Your task to perform on an android device: search for starred emails in the gmail app Image 0: 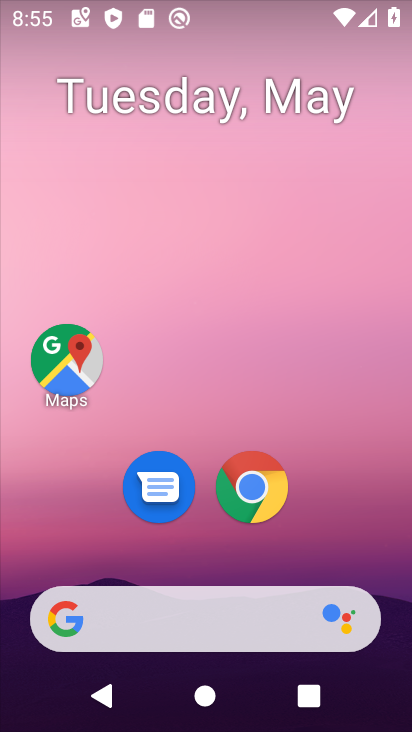
Step 0: drag from (363, 544) to (355, 156)
Your task to perform on an android device: search for starred emails in the gmail app Image 1: 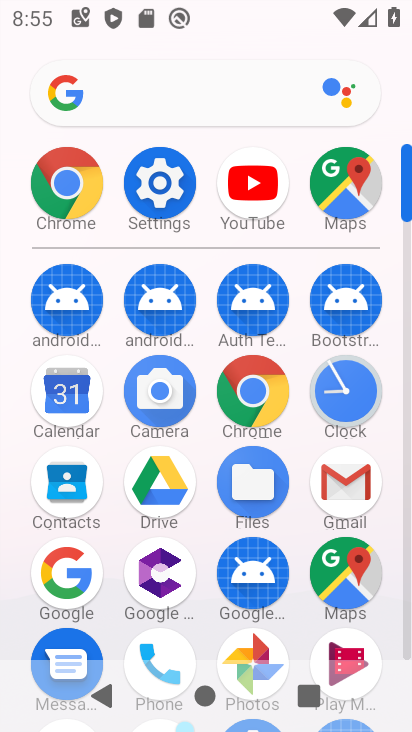
Step 1: click (358, 484)
Your task to perform on an android device: search for starred emails in the gmail app Image 2: 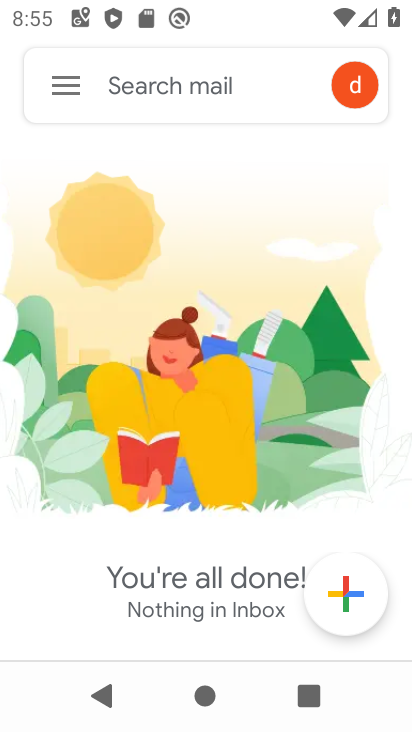
Step 2: click (63, 86)
Your task to perform on an android device: search for starred emails in the gmail app Image 3: 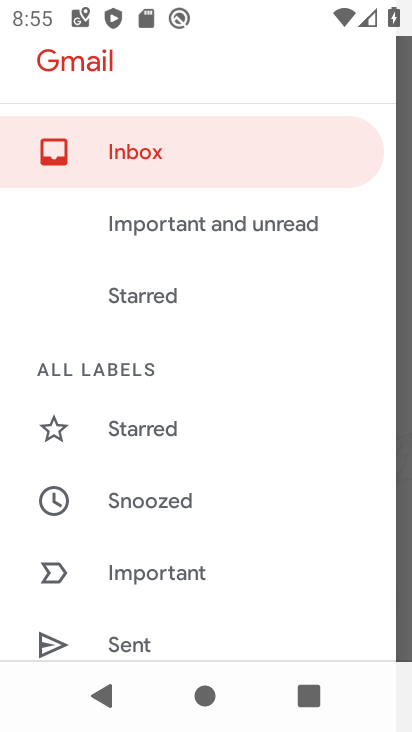
Step 3: click (179, 438)
Your task to perform on an android device: search for starred emails in the gmail app Image 4: 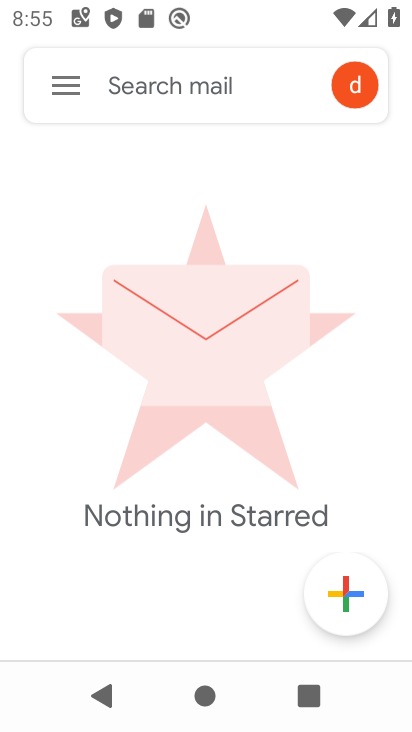
Step 4: task complete